Your task to perform on an android device: Go to Yahoo.com Image 0: 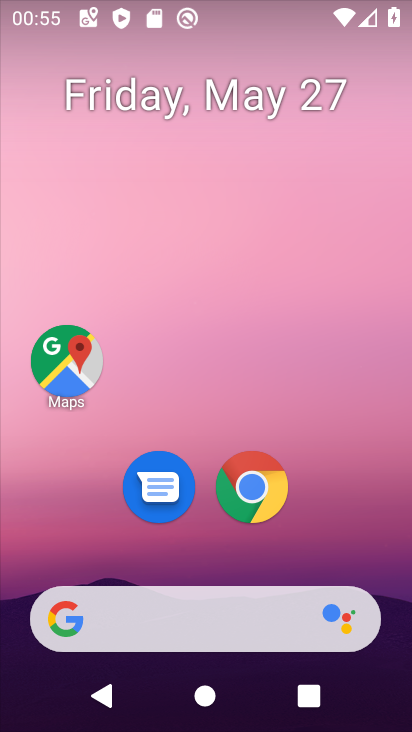
Step 0: click (265, 488)
Your task to perform on an android device: Go to Yahoo.com Image 1: 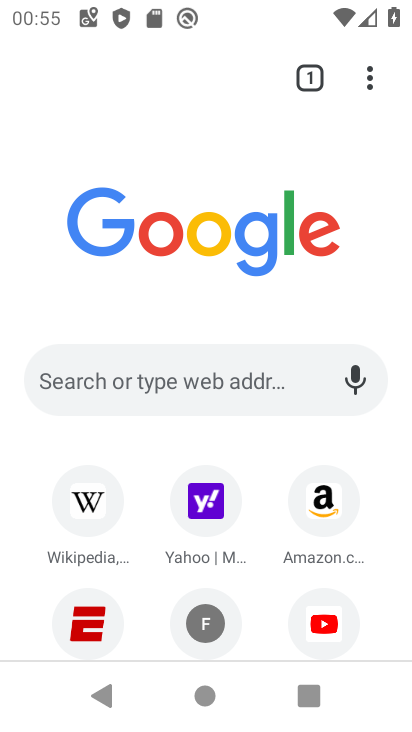
Step 1: click (205, 507)
Your task to perform on an android device: Go to Yahoo.com Image 2: 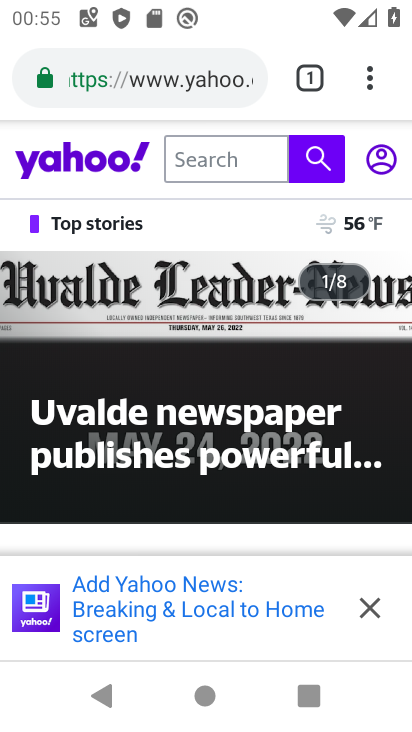
Step 2: task complete